Your task to perform on an android device: Show the shopping cart on target. Search for razer deathadder on target, select the first entry, and add it to the cart. Image 0: 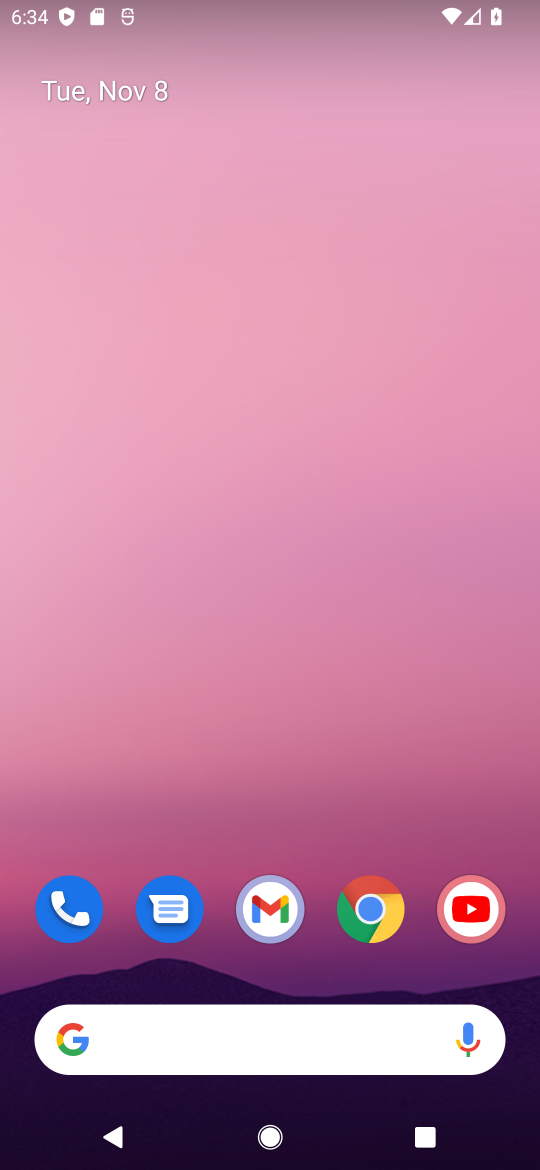
Step 0: click (374, 897)
Your task to perform on an android device: Show the shopping cart on target. Search for razer deathadder on target, select the first entry, and add it to the cart. Image 1: 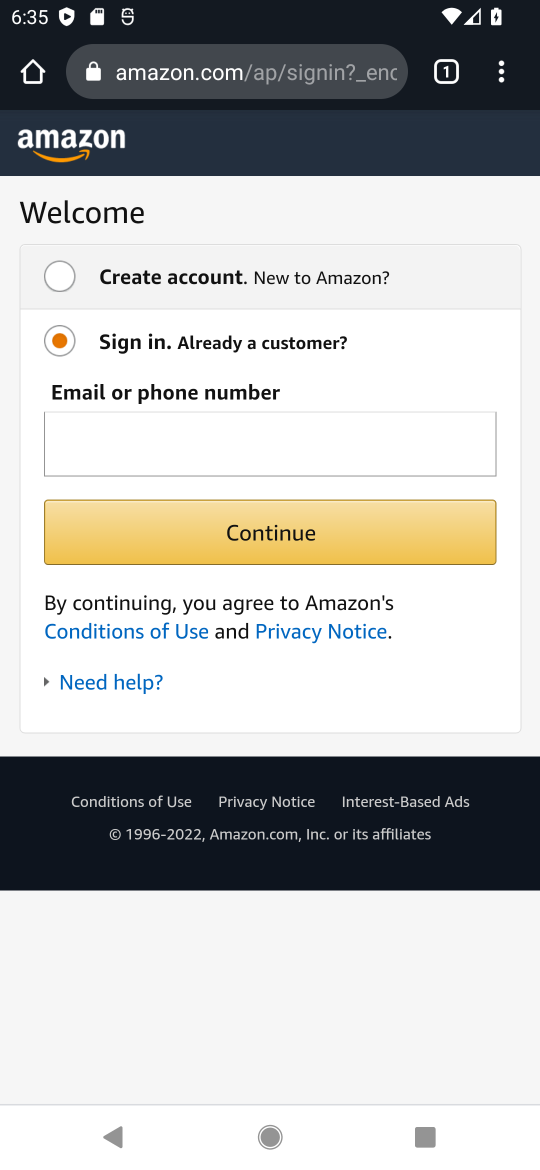
Step 1: click (265, 63)
Your task to perform on an android device: Show the shopping cart on target. Search for razer deathadder on target, select the first entry, and add it to the cart. Image 2: 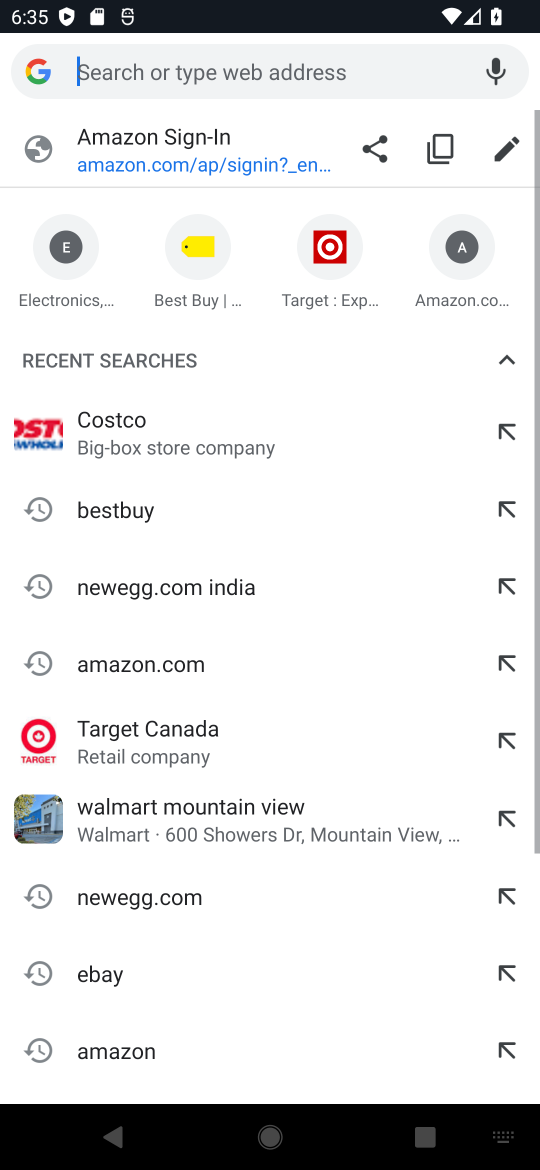
Step 2: click (325, 248)
Your task to perform on an android device: Show the shopping cart on target. Search for razer deathadder on target, select the first entry, and add it to the cart. Image 3: 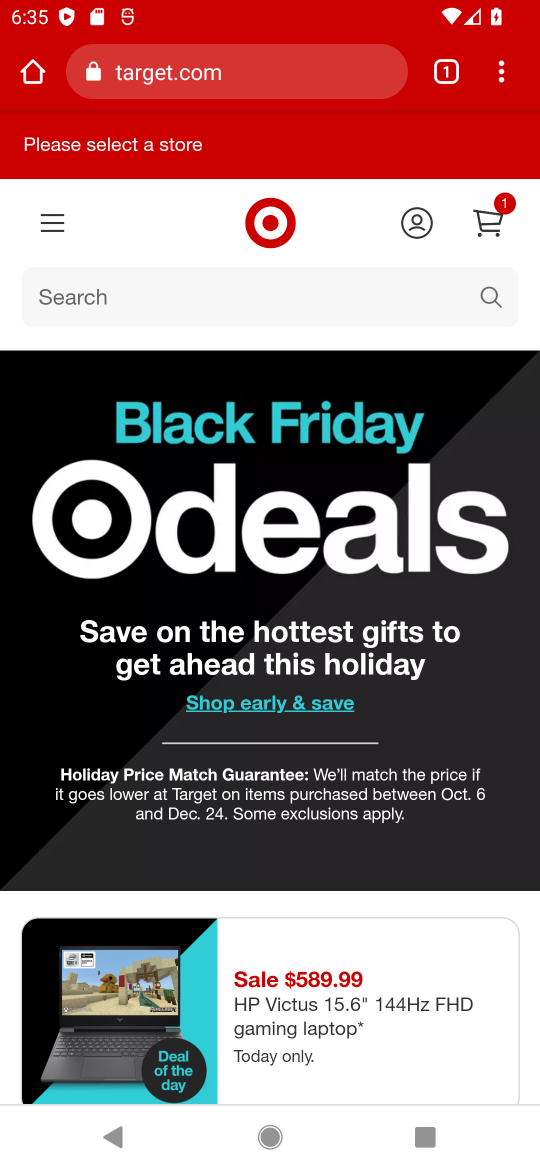
Step 3: click (142, 275)
Your task to perform on an android device: Show the shopping cart on target. Search for razer deathadder on target, select the first entry, and add it to the cart. Image 4: 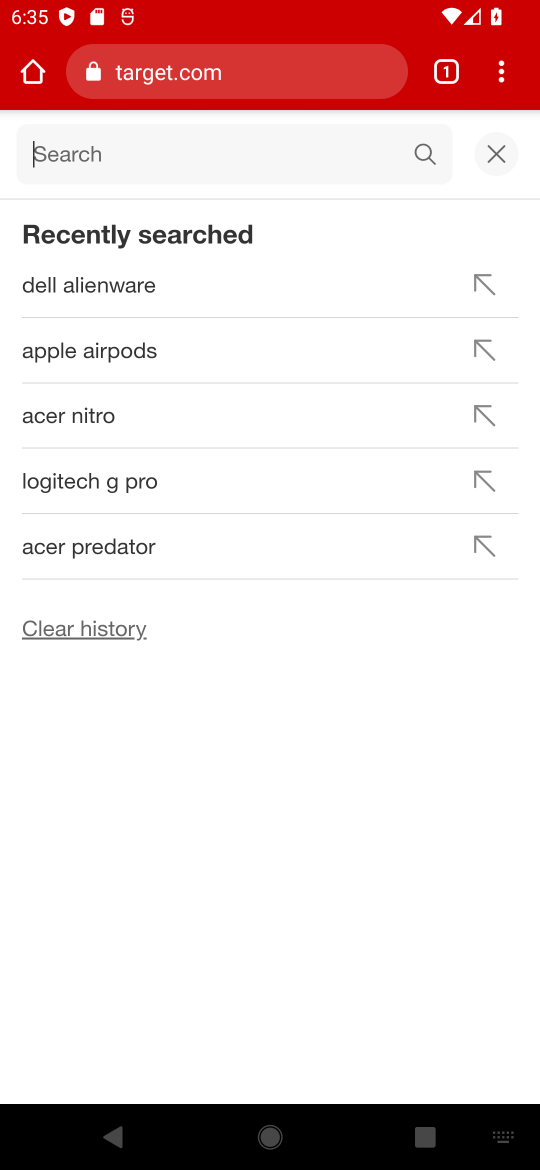
Step 4: type "razer deathadder"
Your task to perform on an android device: Show the shopping cart on target. Search for razer deathadder on target, select the first entry, and add it to the cart. Image 5: 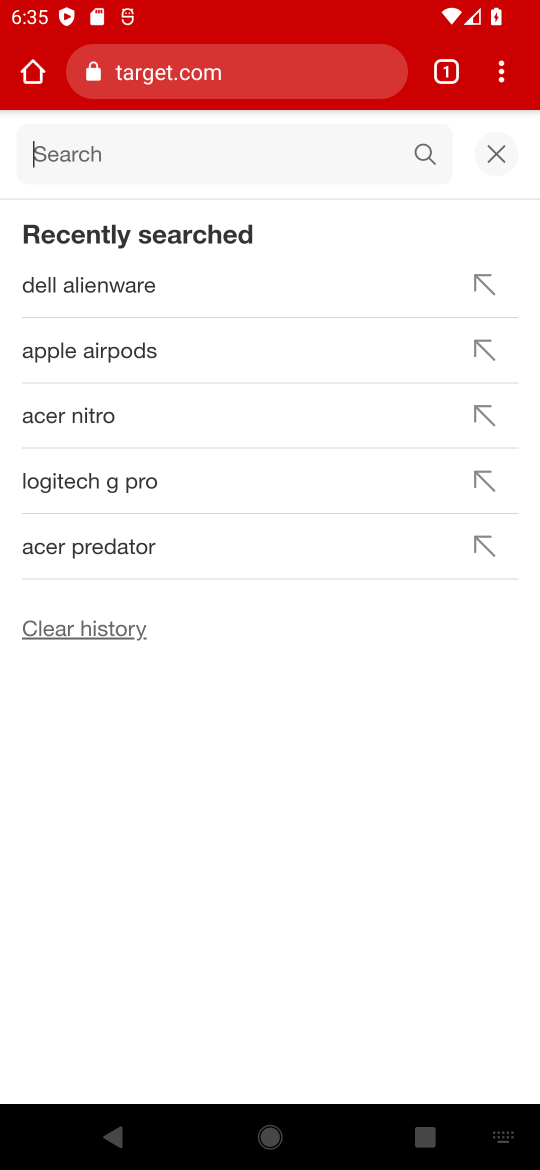
Step 5: press enter
Your task to perform on an android device: Show the shopping cart on target. Search for razer deathadder on target, select the first entry, and add it to the cart. Image 6: 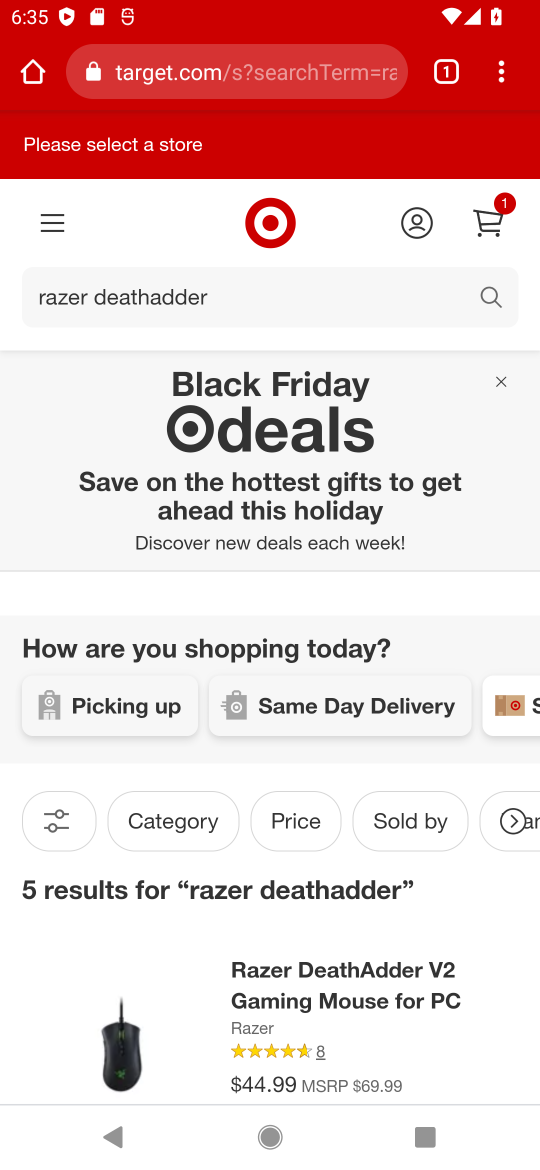
Step 6: drag from (249, 874) to (316, 308)
Your task to perform on an android device: Show the shopping cart on target. Search for razer deathadder on target, select the first entry, and add it to the cart. Image 7: 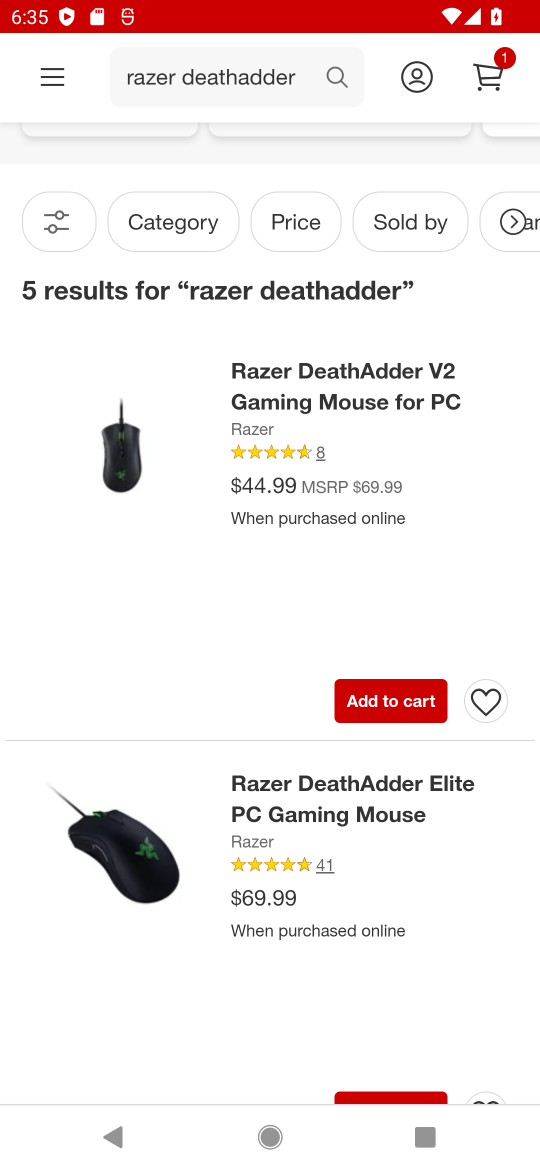
Step 7: drag from (253, 864) to (283, 926)
Your task to perform on an android device: Show the shopping cart on target. Search for razer deathadder on target, select the first entry, and add it to the cart. Image 8: 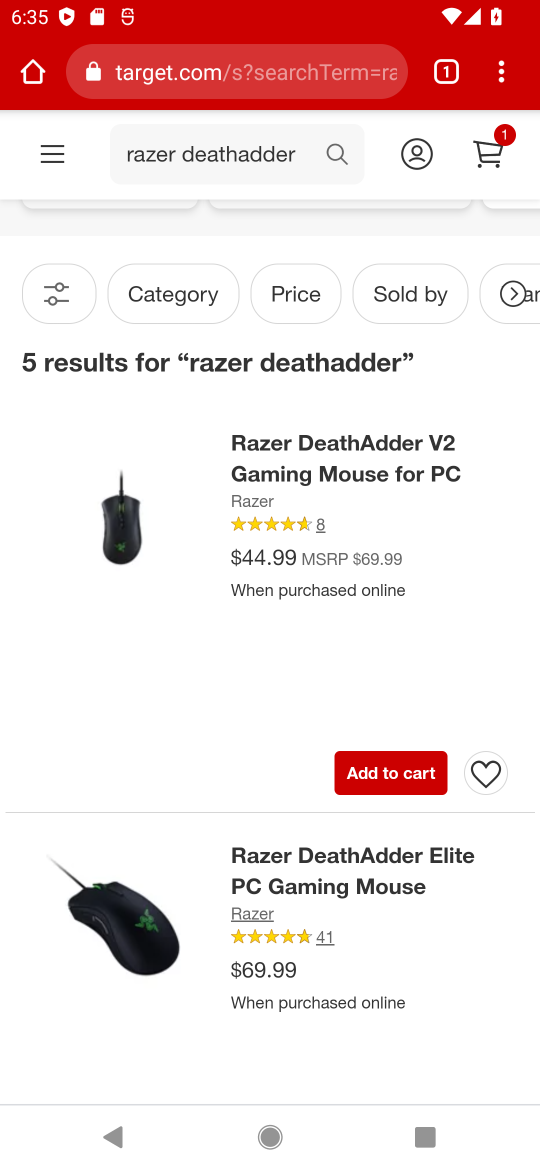
Step 8: click (389, 775)
Your task to perform on an android device: Show the shopping cart on target. Search for razer deathadder on target, select the first entry, and add it to the cart. Image 9: 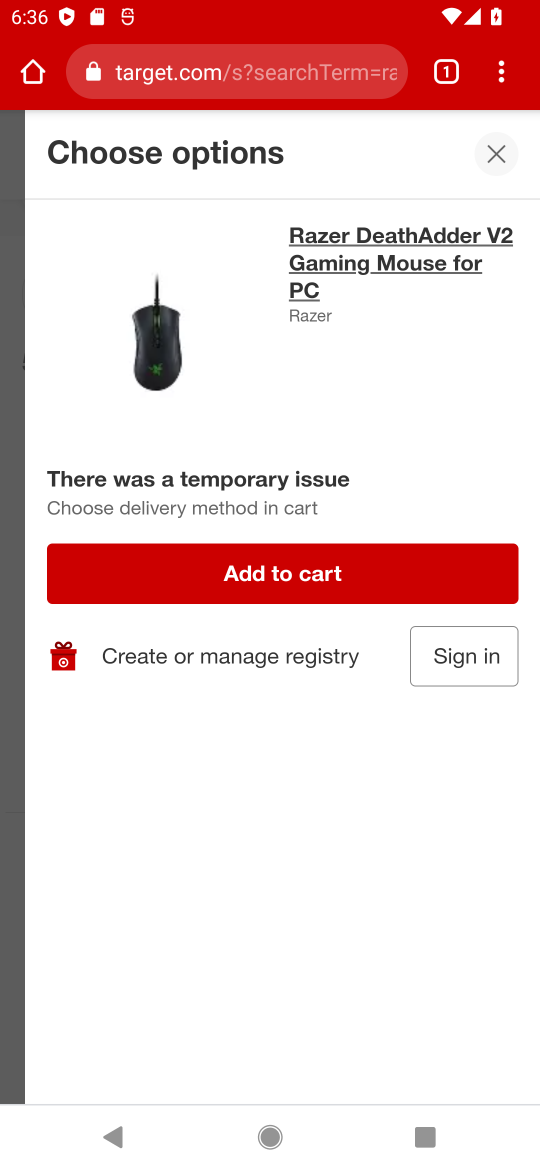
Step 9: click (280, 562)
Your task to perform on an android device: Show the shopping cart on target. Search for razer deathadder on target, select the first entry, and add it to the cart. Image 10: 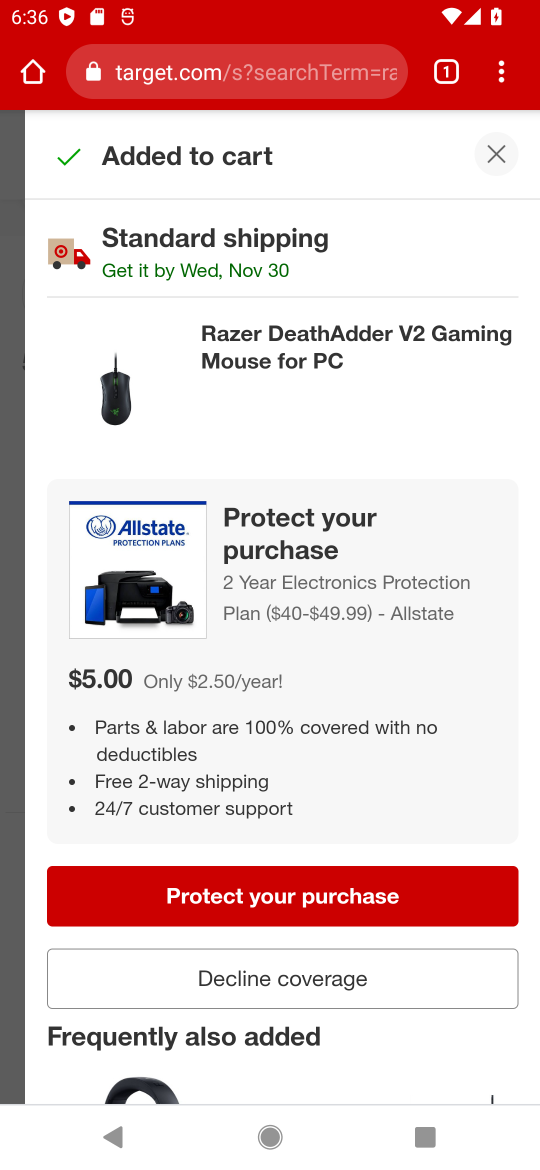
Step 10: click (284, 974)
Your task to perform on an android device: Show the shopping cart on target. Search for razer deathadder on target, select the first entry, and add it to the cart. Image 11: 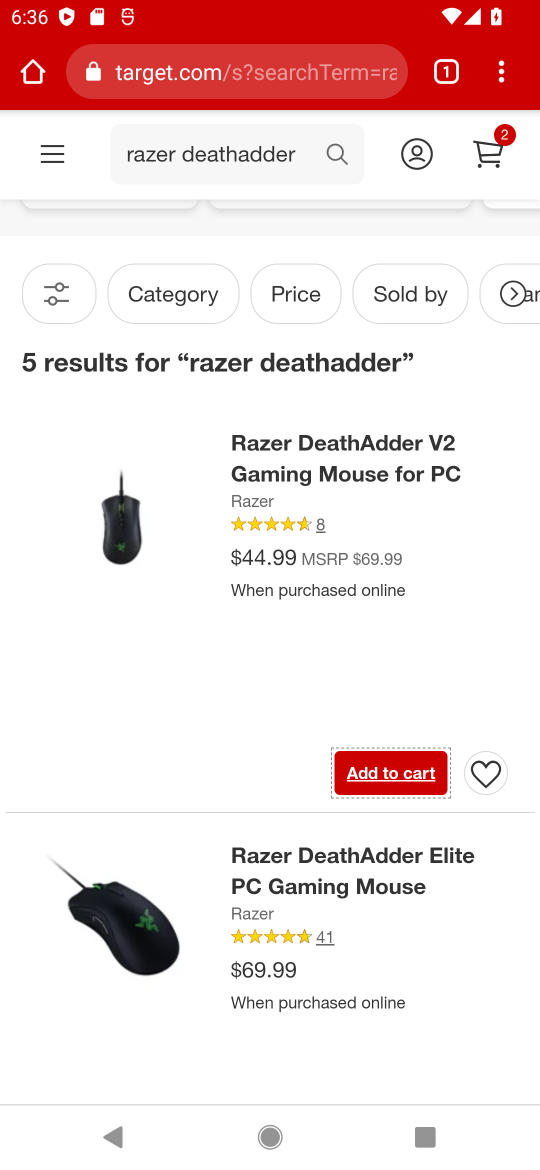
Step 11: click (494, 144)
Your task to perform on an android device: Show the shopping cart on target. Search for razer deathadder on target, select the first entry, and add it to the cart. Image 12: 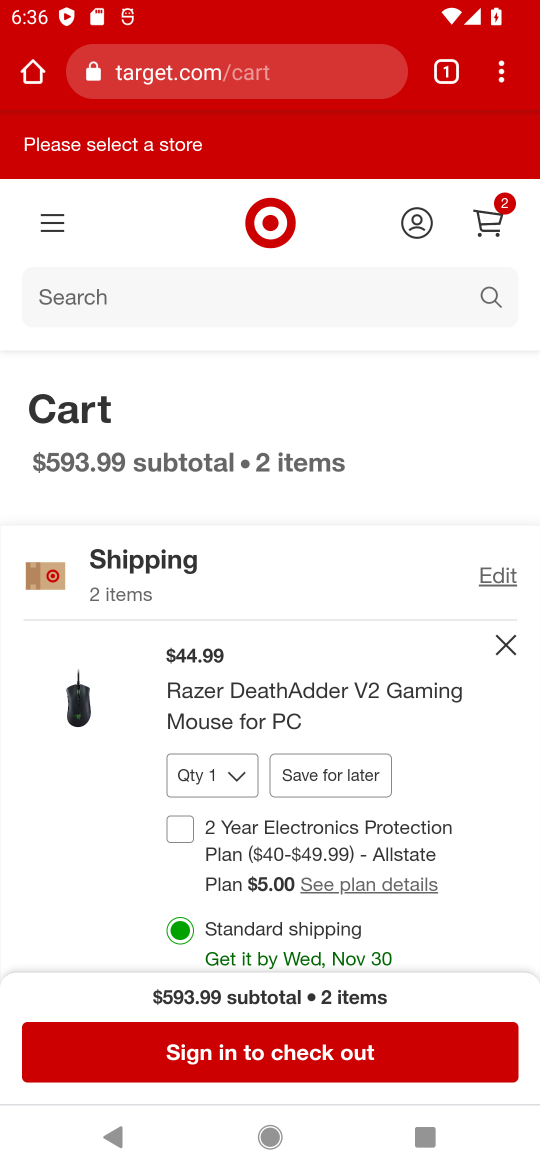
Step 12: drag from (273, 853) to (540, 279)
Your task to perform on an android device: Show the shopping cart on target. Search for razer deathadder on target, select the first entry, and add it to the cart. Image 13: 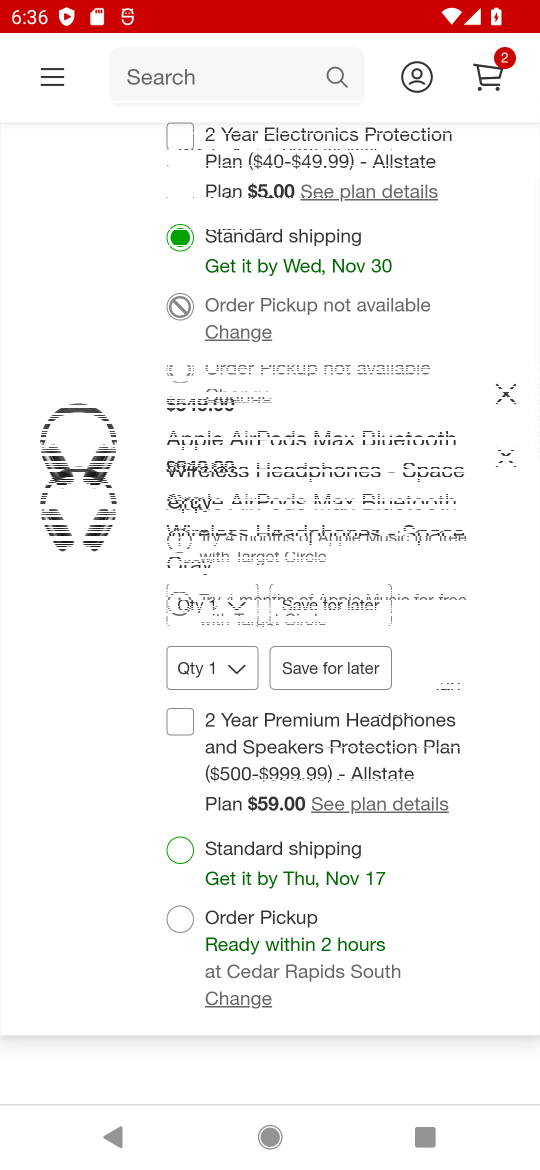
Step 13: click (500, 389)
Your task to perform on an android device: Show the shopping cart on target. Search for razer deathadder on target, select the first entry, and add it to the cart. Image 14: 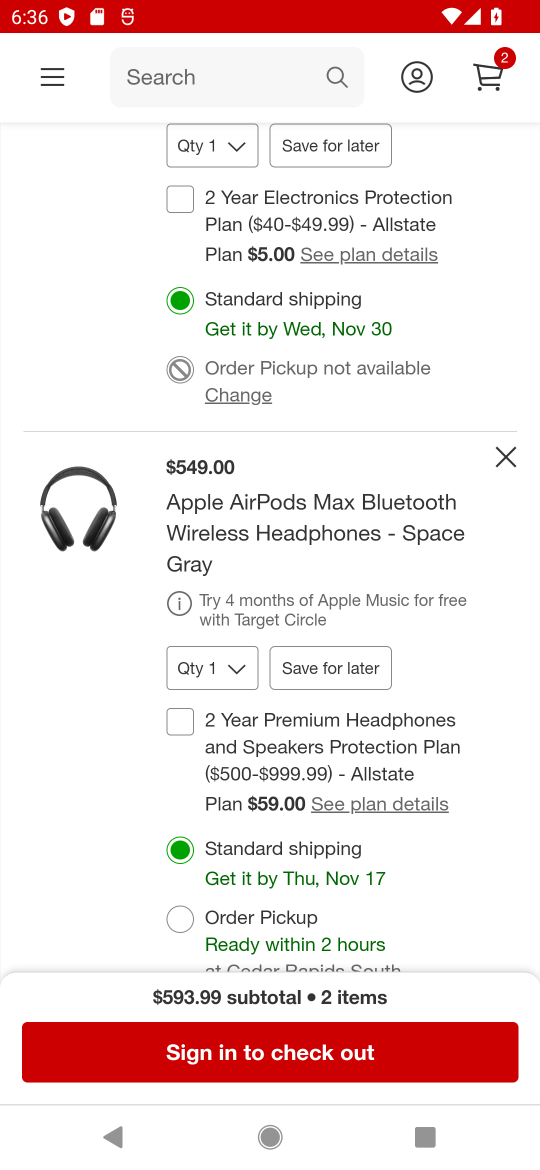
Step 14: click (507, 452)
Your task to perform on an android device: Show the shopping cart on target. Search for razer deathadder on target, select the first entry, and add it to the cart. Image 15: 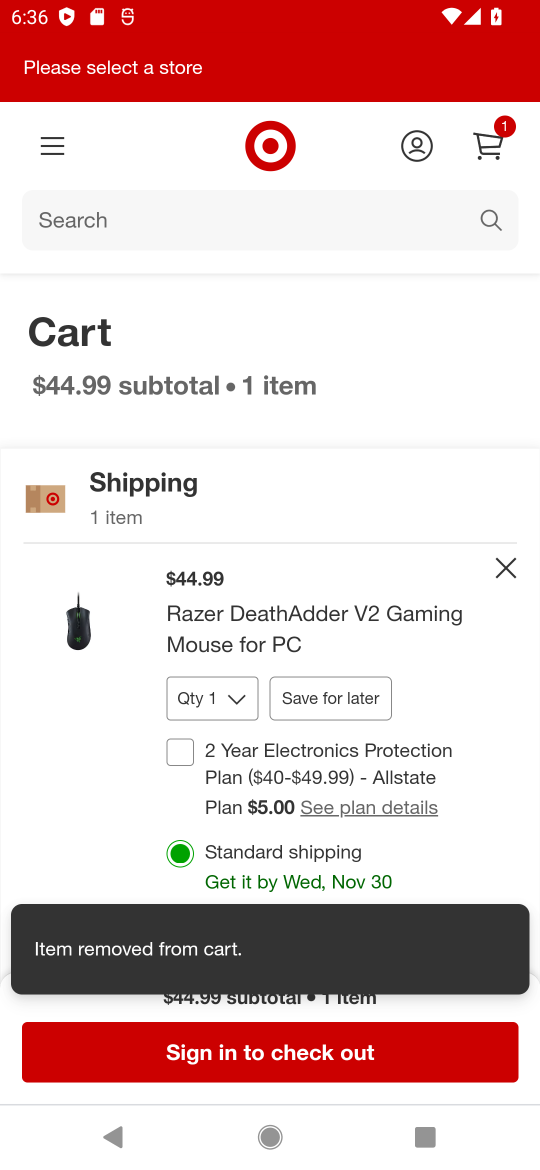
Step 15: click (260, 1058)
Your task to perform on an android device: Show the shopping cart on target. Search for razer deathadder on target, select the first entry, and add it to the cart. Image 16: 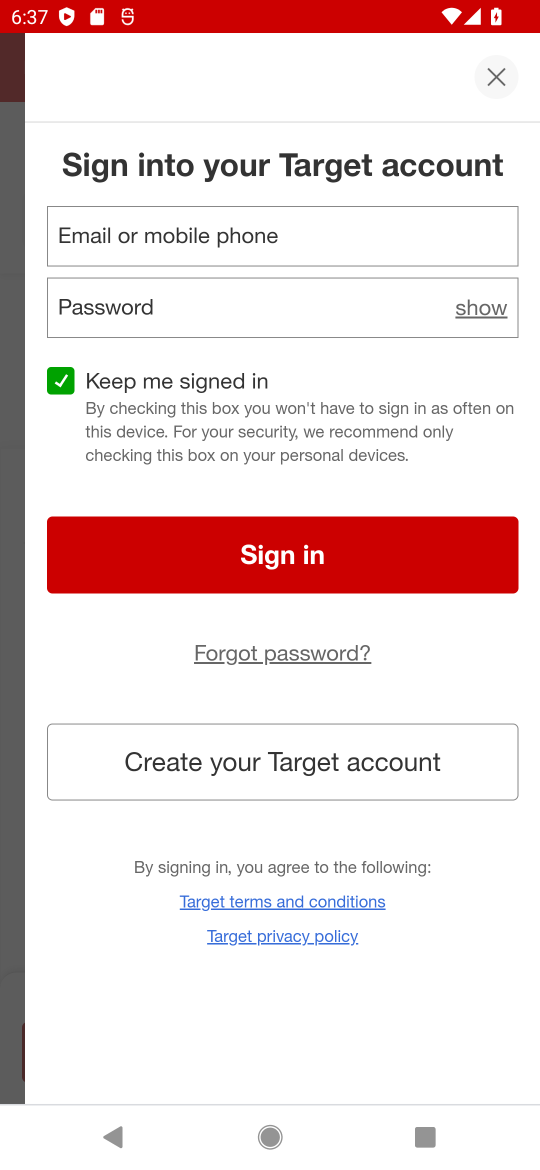
Step 16: task complete